Your task to perform on an android device: open app "McDonald's" (install if not already installed) Image 0: 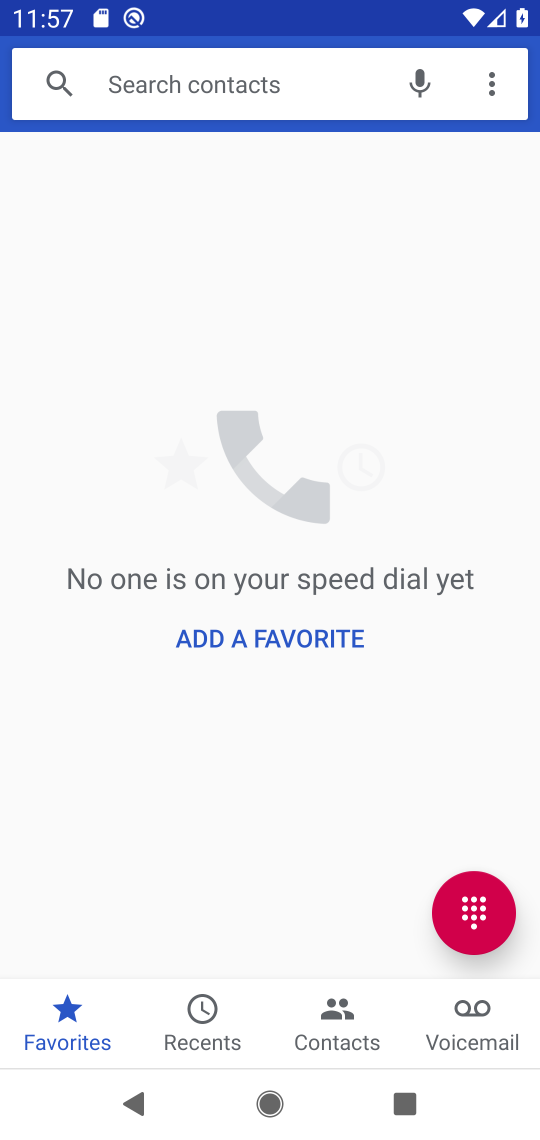
Step 0: press home button
Your task to perform on an android device: open app "McDonald's" (install if not already installed) Image 1: 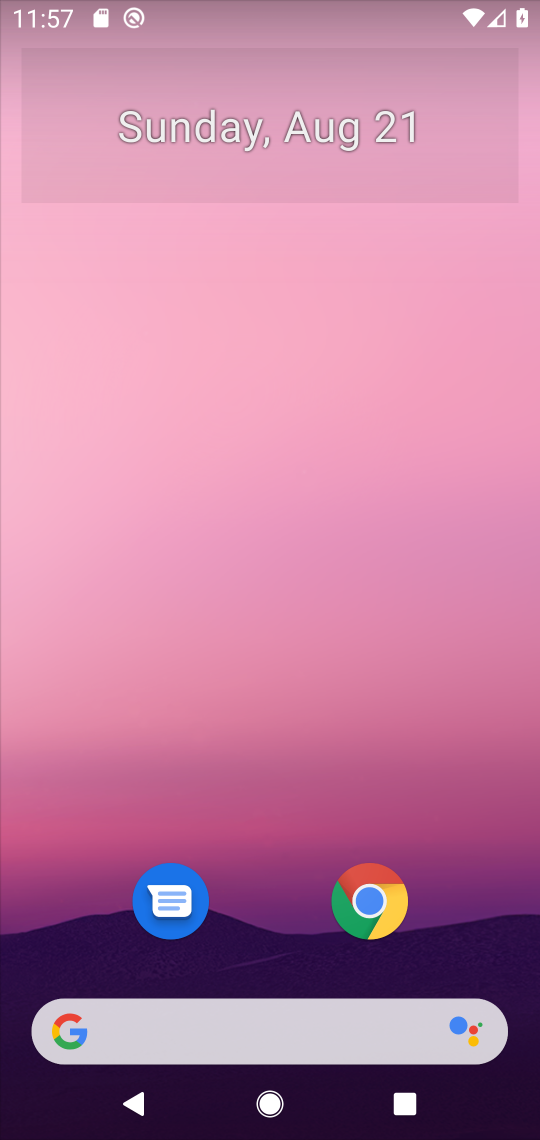
Step 1: drag from (256, 954) to (422, 50)
Your task to perform on an android device: open app "McDonald's" (install if not already installed) Image 2: 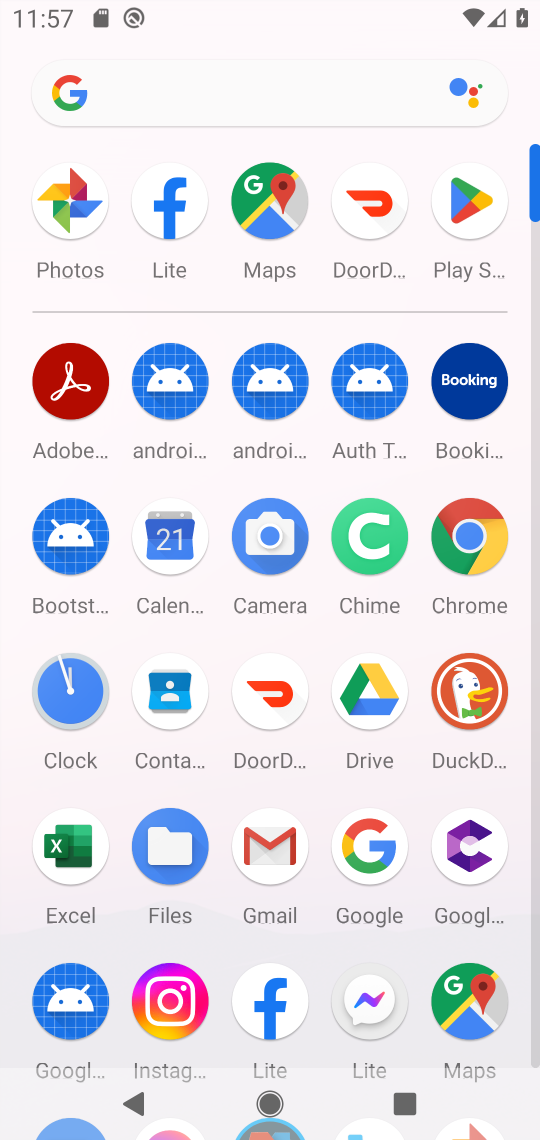
Step 2: click (455, 191)
Your task to perform on an android device: open app "McDonald's" (install if not already installed) Image 3: 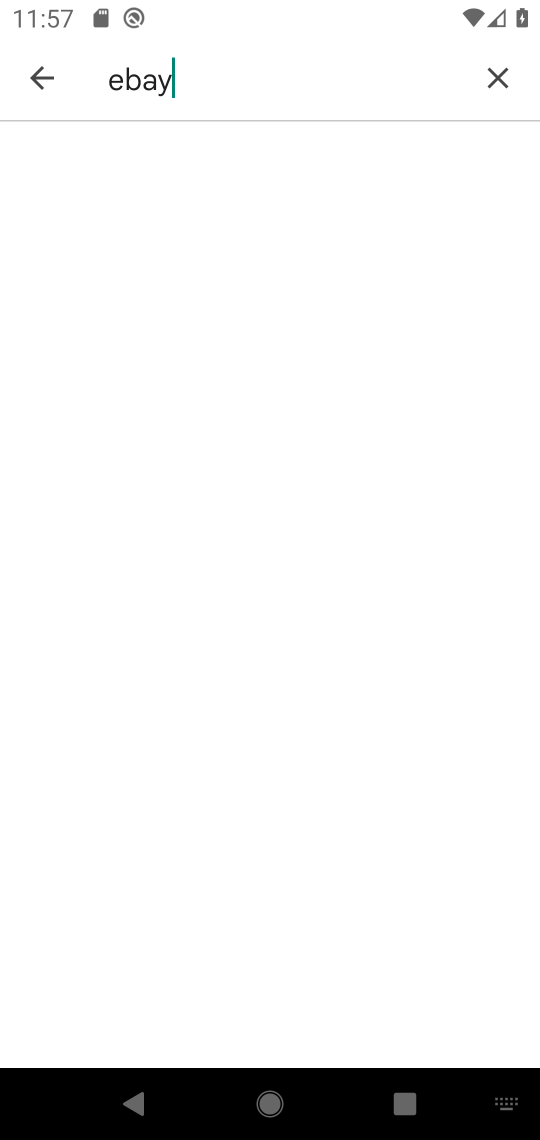
Step 3: click (503, 99)
Your task to perform on an android device: open app "McDonald's" (install if not already installed) Image 4: 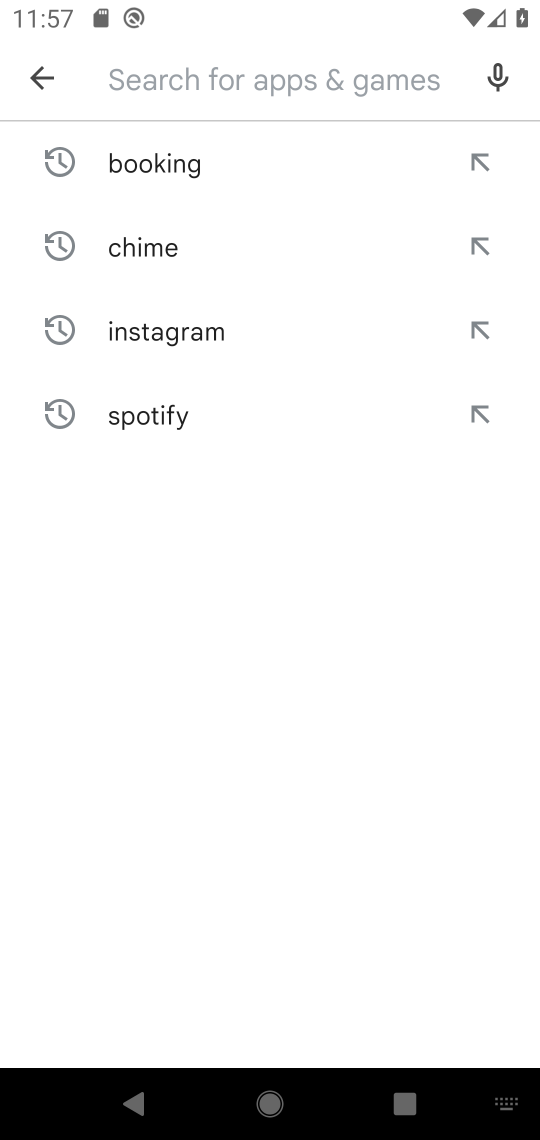
Step 4: type "mcdoland"
Your task to perform on an android device: open app "McDonald's" (install if not already installed) Image 5: 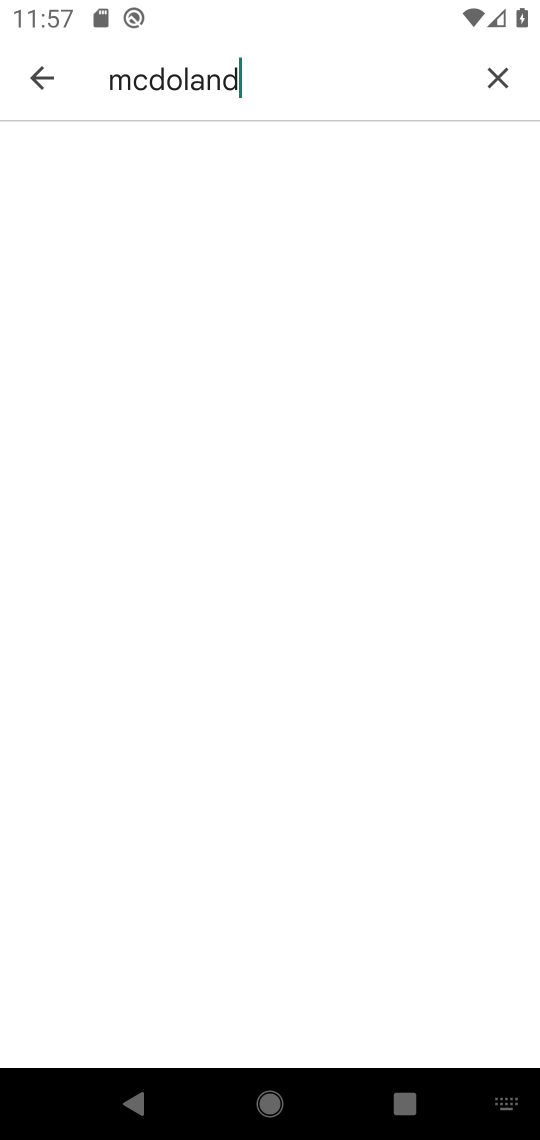
Step 5: task complete